Your task to perform on an android device: Go to notification settings Image 0: 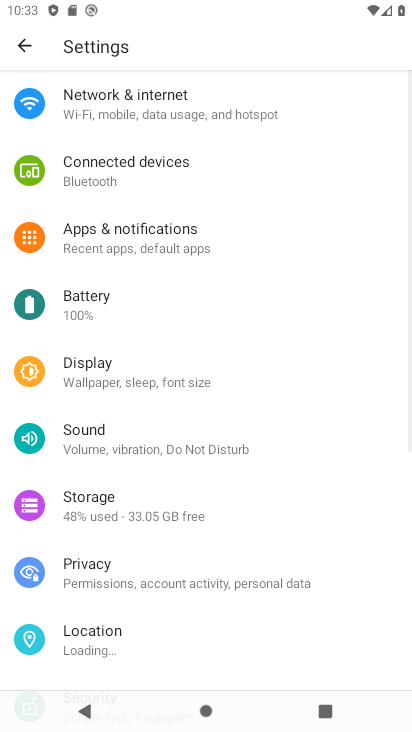
Step 0: press home button
Your task to perform on an android device: Go to notification settings Image 1: 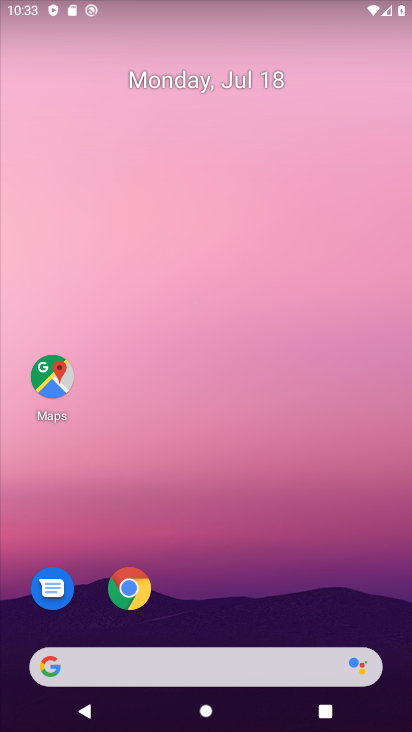
Step 1: drag from (221, 612) to (192, 59)
Your task to perform on an android device: Go to notification settings Image 2: 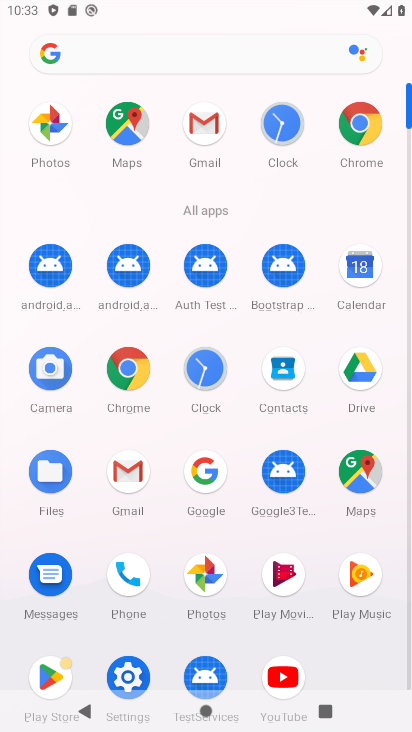
Step 2: click (116, 658)
Your task to perform on an android device: Go to notification settings Image 3: 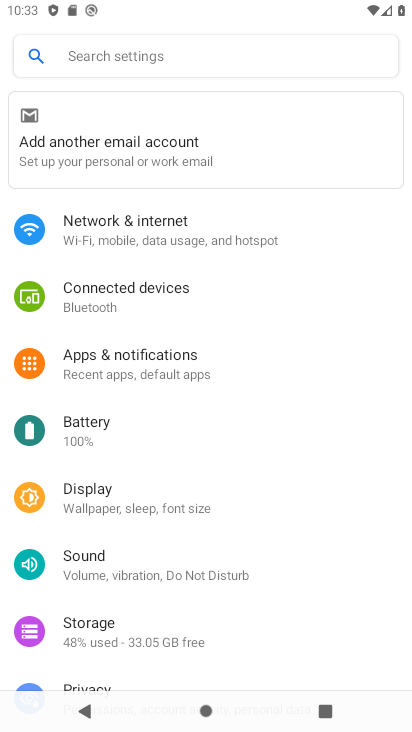
Step 3: click (88, 373)
Your task to perform on an android device: Go to notification settings Image 4: 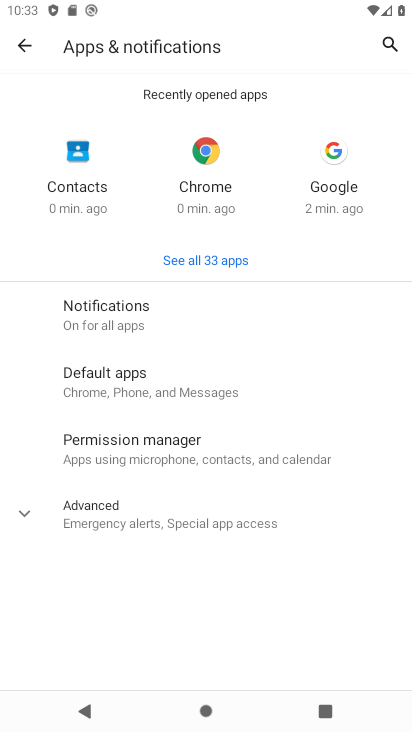
Step 4: click (103, 323)
Your task to perform on an android device: Go to notification settings Image 5: 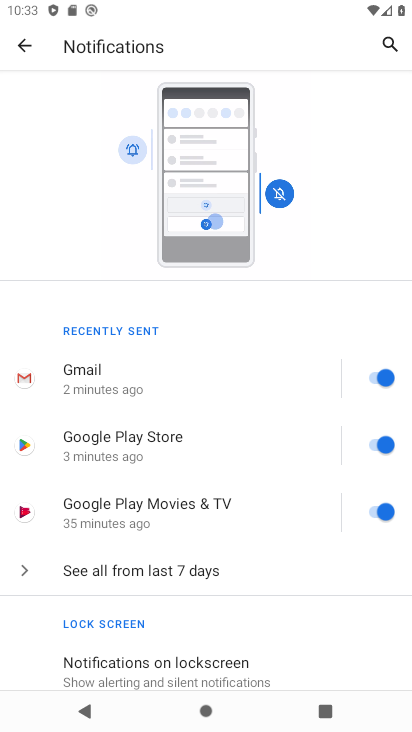
Step 5: drag from (189, 652) to (161, 311)
Your task to perform on an android device: Go to notification settings Image 6: 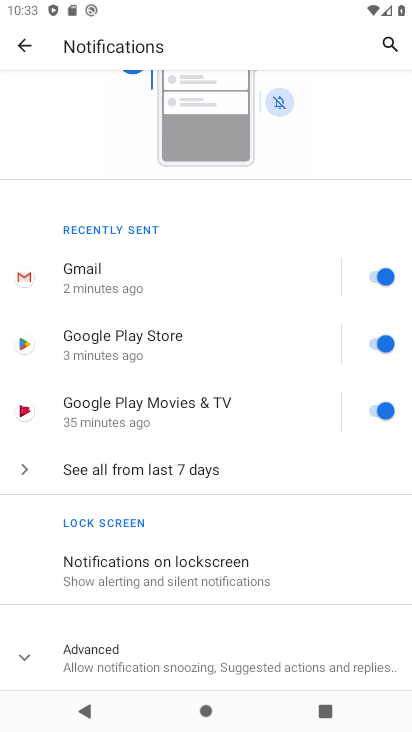
Step 6: click (139, 461)
Your task to perform on an android device: Go to notification settings Image 7: 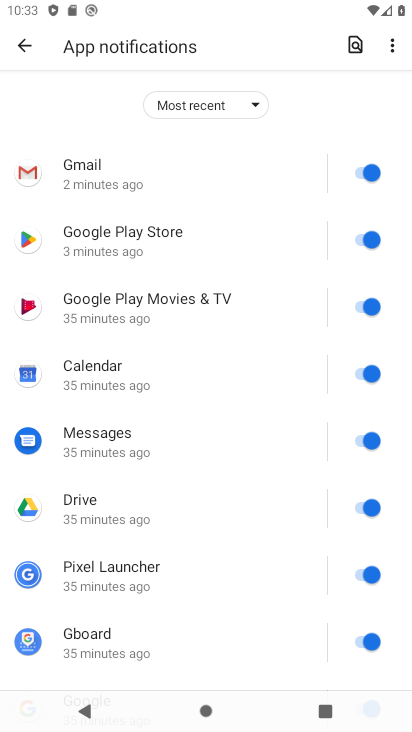
Step 7: click (206, 102)
Your task to perform on an android device: Go to notification settings Image 8: 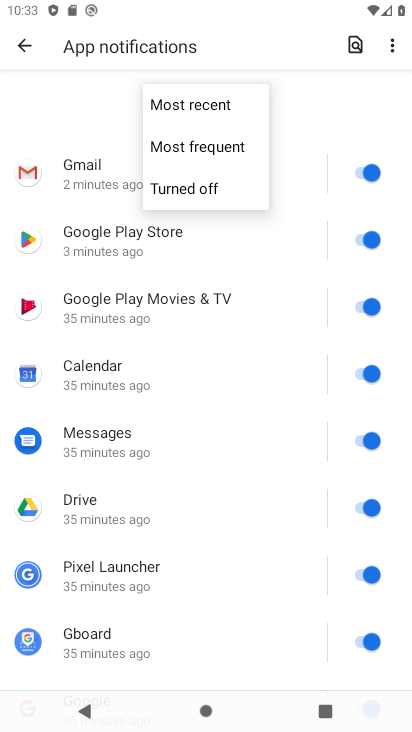
Step 8: task complete